Your task to perform on an android device: See recent photos Image 0: 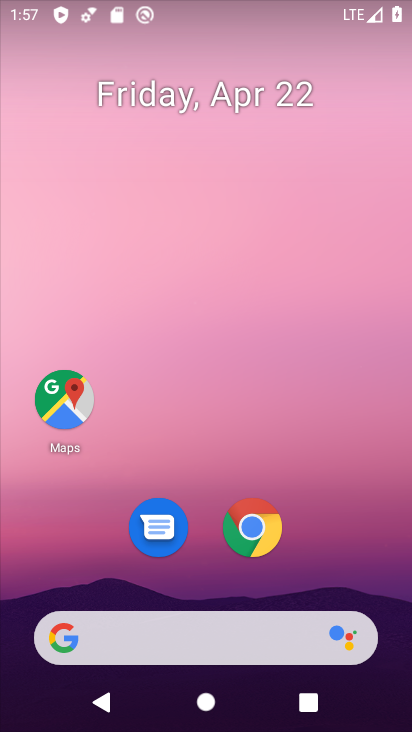
Step 0: press home button
Your task to perform on an android device: See recent photos Image 1: 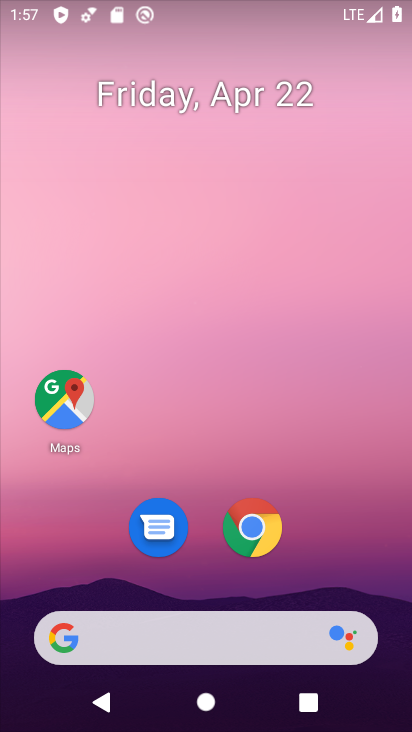
Step 1: drag from (284, 477) to (203, 106)
Your task to perform on an android device: See recent photos Image 2: 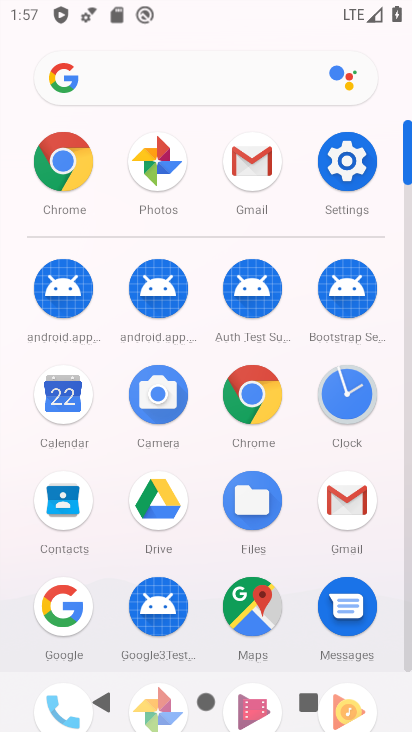
Step 2: click (153, 171)
Your task to perform on an android device: See recent photos Image 3: 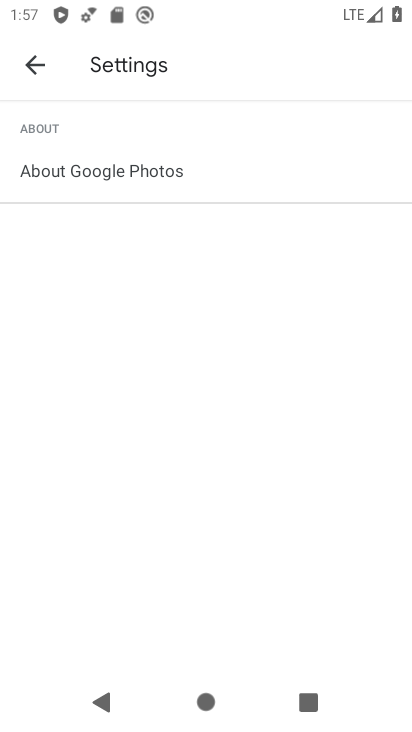
Step 3: click (39, 64)
Your task to perform on an android device: See recent photos Image 4: 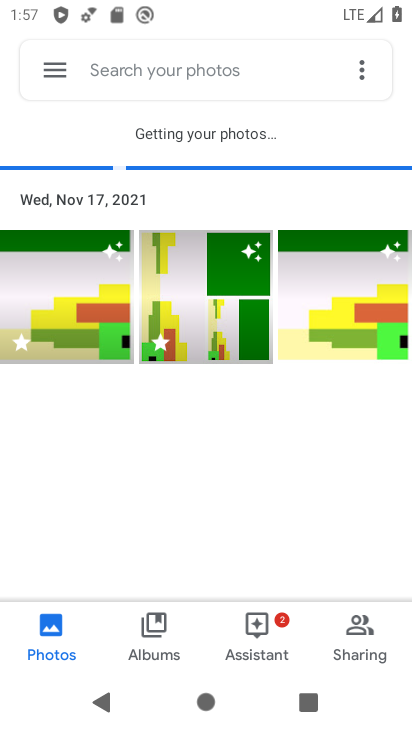
Step 4: task complete